Your task to perform on an android device: Do I have any events today? Image 0: 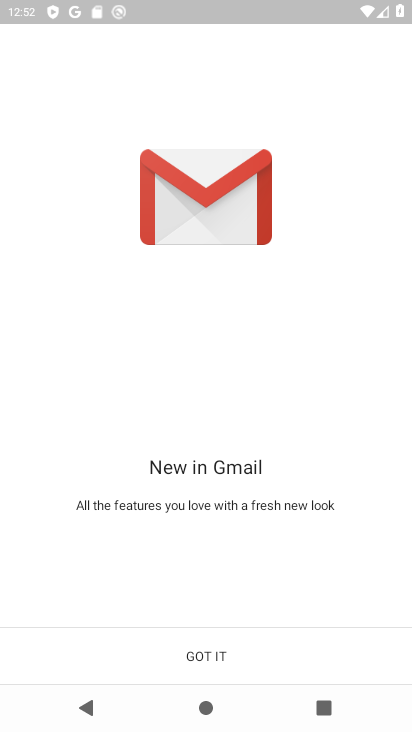
Step 0: press home button
Your task to perform on an android device: Do I have any events today? Image 1: 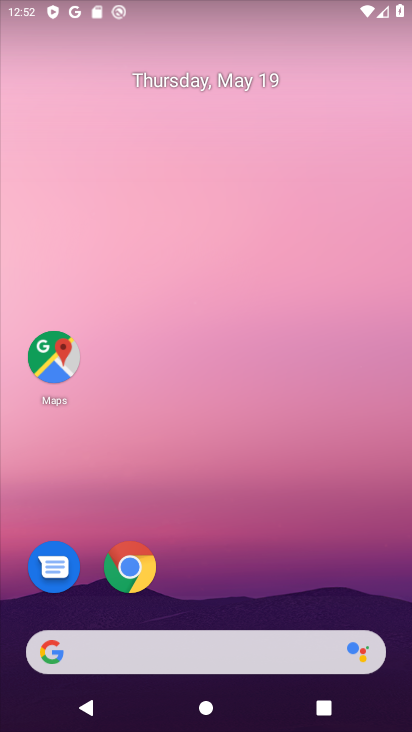
Step 1: drag from (263, 582) to (269, 98)
Your task to perform on an android device: Do I have any events today? Image 2: 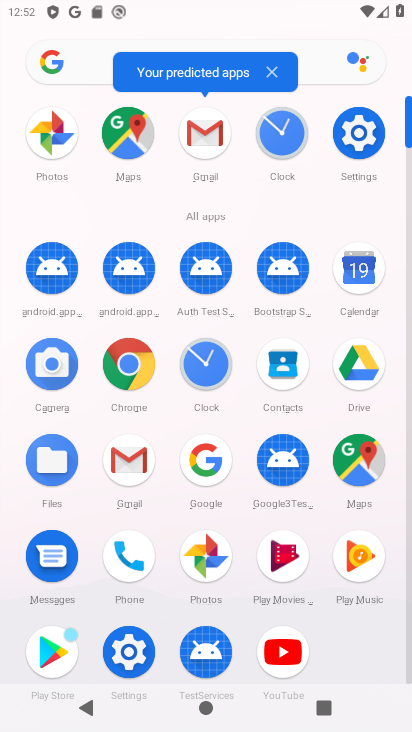
Step 2: click (362, 281)
Your task to perform on an android device: Do I have any events today? Image 3: 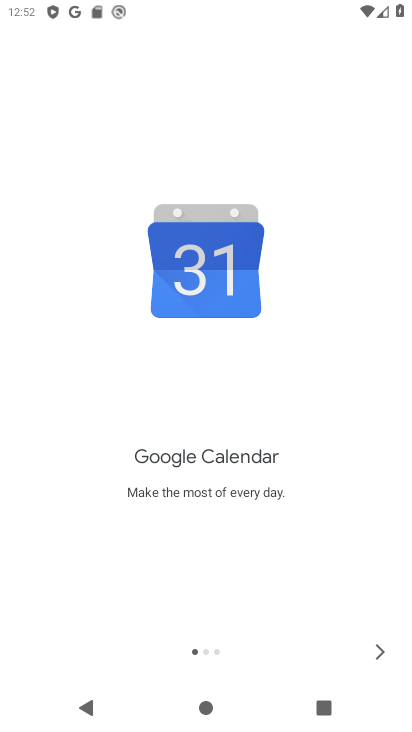
Step 3: click (371, 653)
Your task to perform on an android device: Do I have any events today? Image 4: 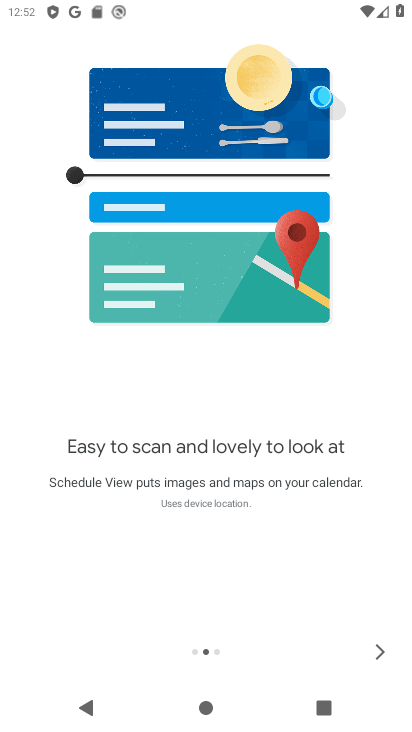
Step 4: click (372, 643)
Your task to perform on an android device: Do I have any events today? Image 5: 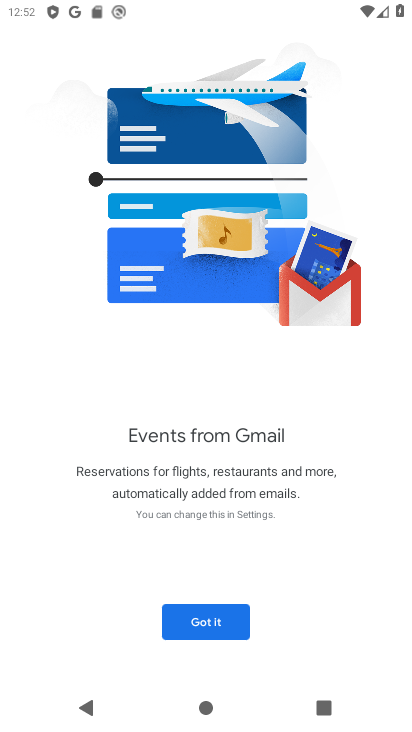
Step 5: click (199, 613)
Your task to perform on an android device: Do I have any events today? Image 6: 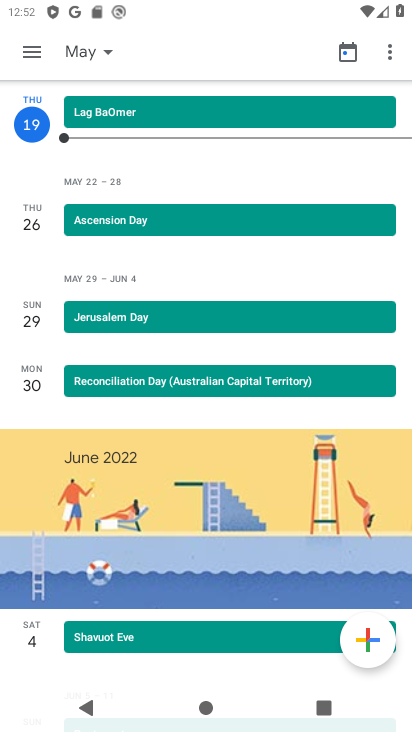
Step 6: click (87, 46)
Your task to perform on an android device: Do I have any events today? Image 7: 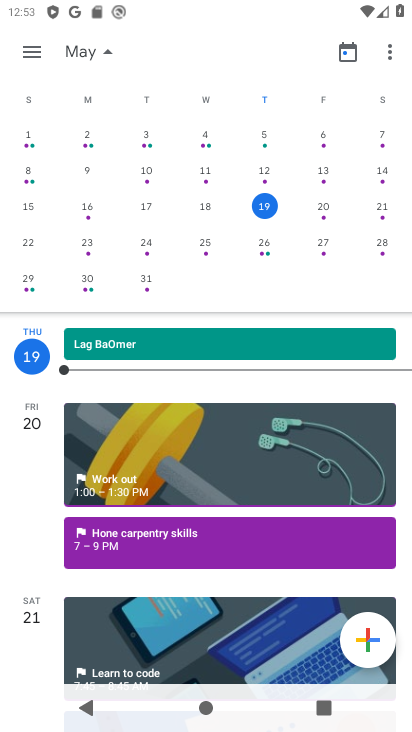
Step 7: task complete